Your task to perform on an android device: install app "Roku - Official Remote Control" Image 0: 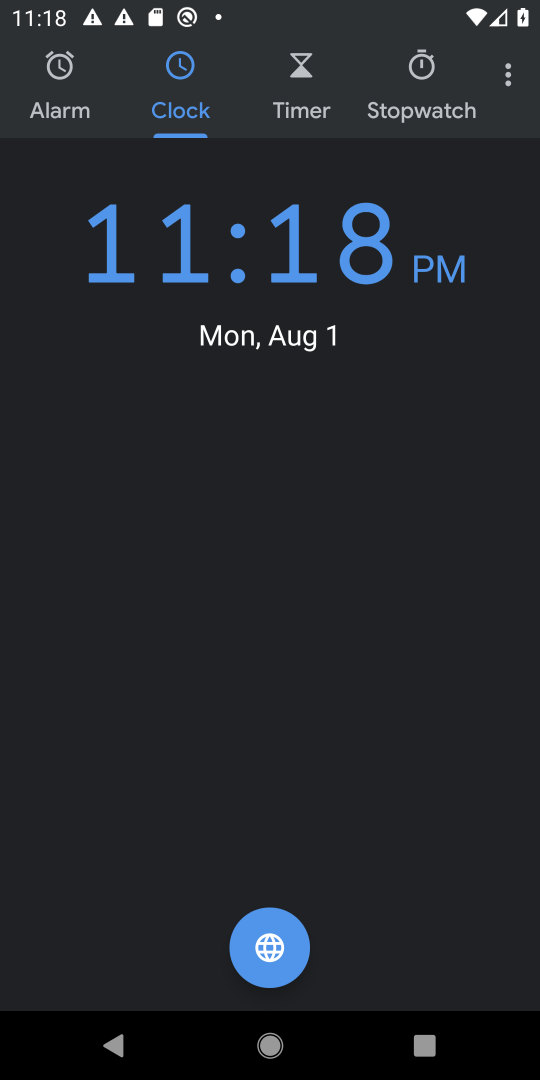
Step 0: press home button
Your task to perform on an android device: install app "Roku - Official Remote Control" Image 1: 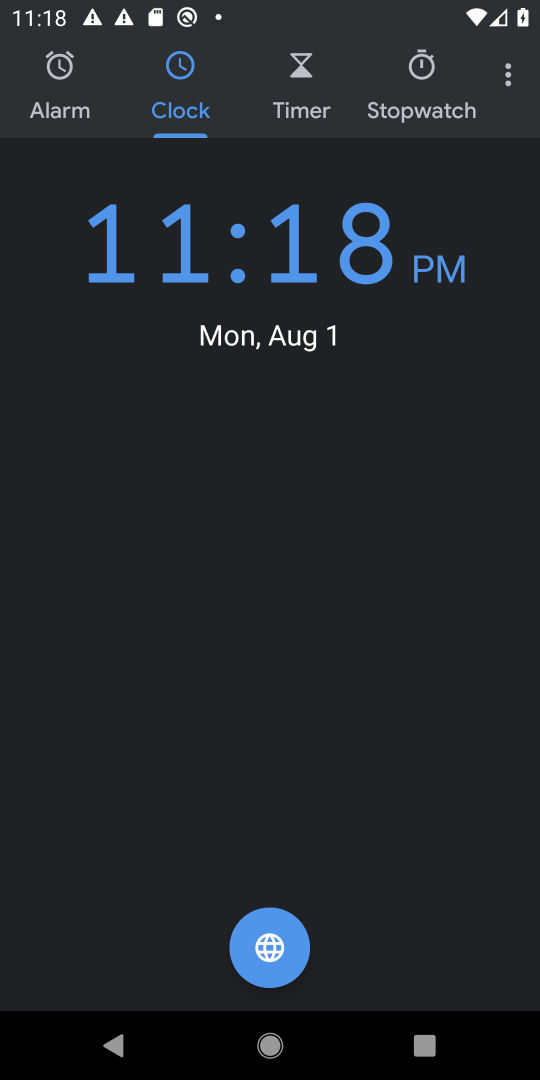
Step 1: drag from (315, 766) to (307, 89)
Your task to perform on an android device: install app "Roku - Official Remote Control" Image 2: 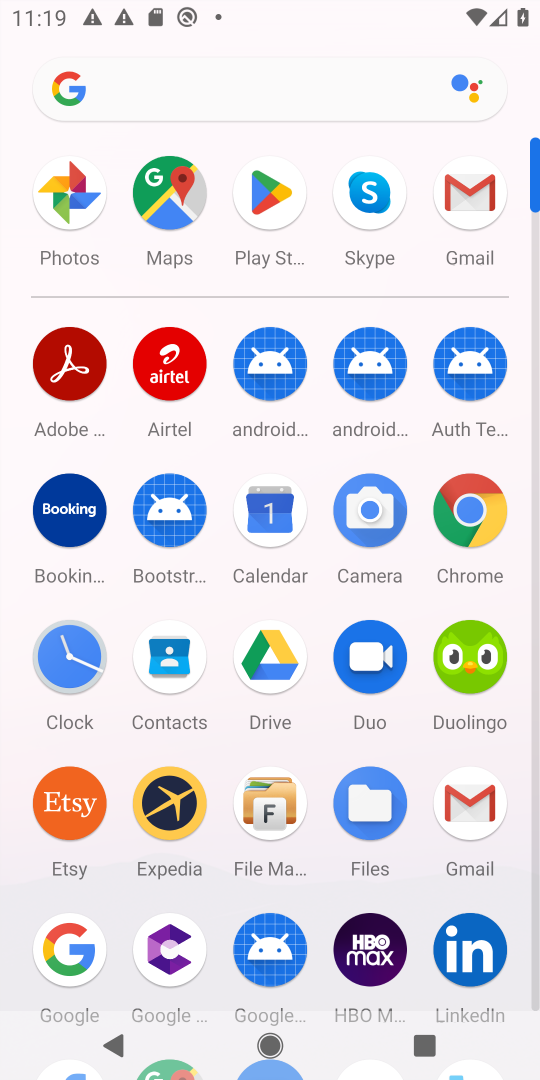
Step 2: click (288, 182)
Your task to perform on an android device: install app "Roku - Official Remote Control" Image 3: 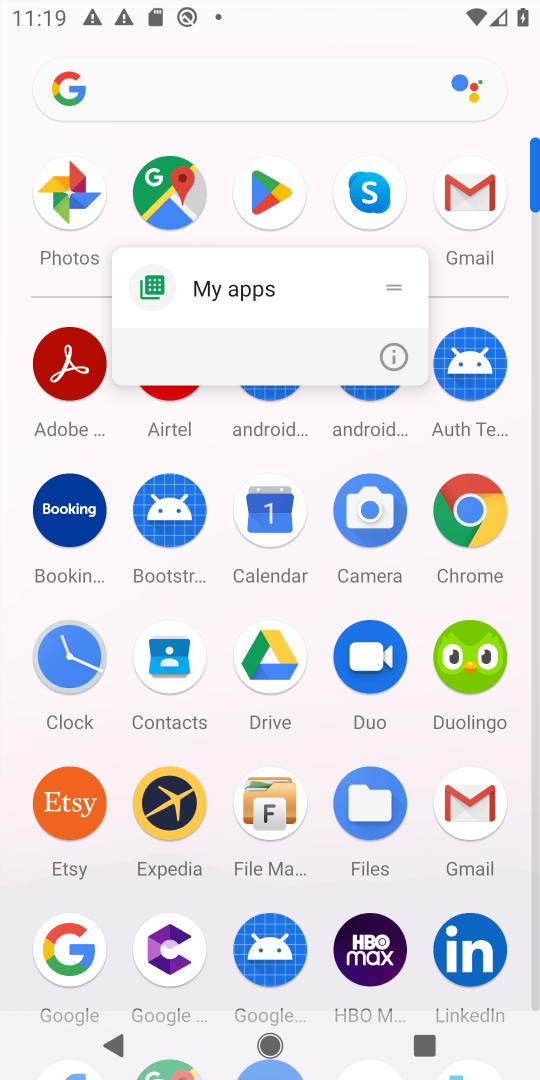
Step 3: click (401, 349)
Your task to perform on an android device: install app "Roku - Official Remote Control" Image 4: 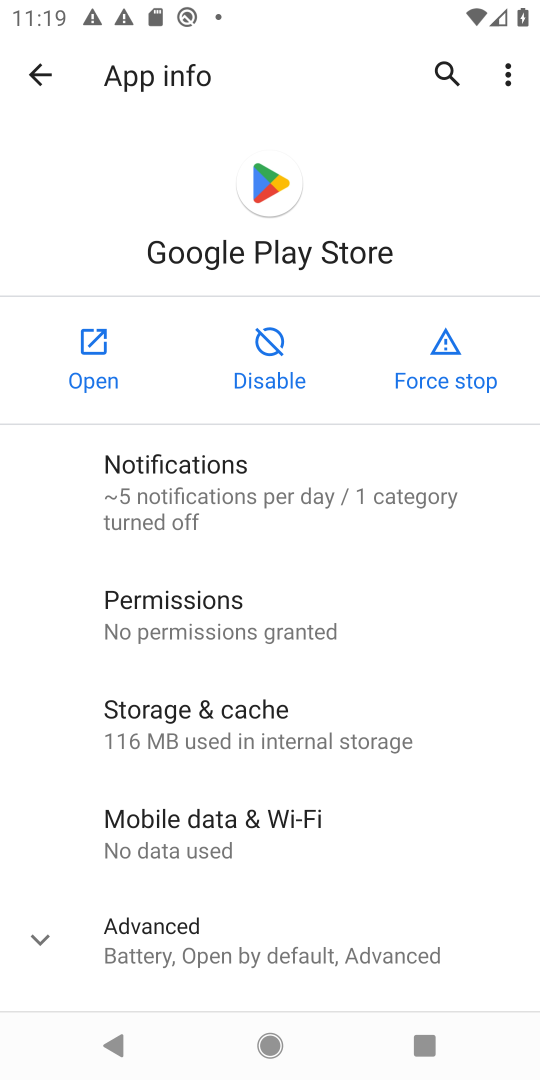
Step 4: click (75, 381)
Your task to perform on an android device: install app "Roku - Official Remote Control" Image 5: 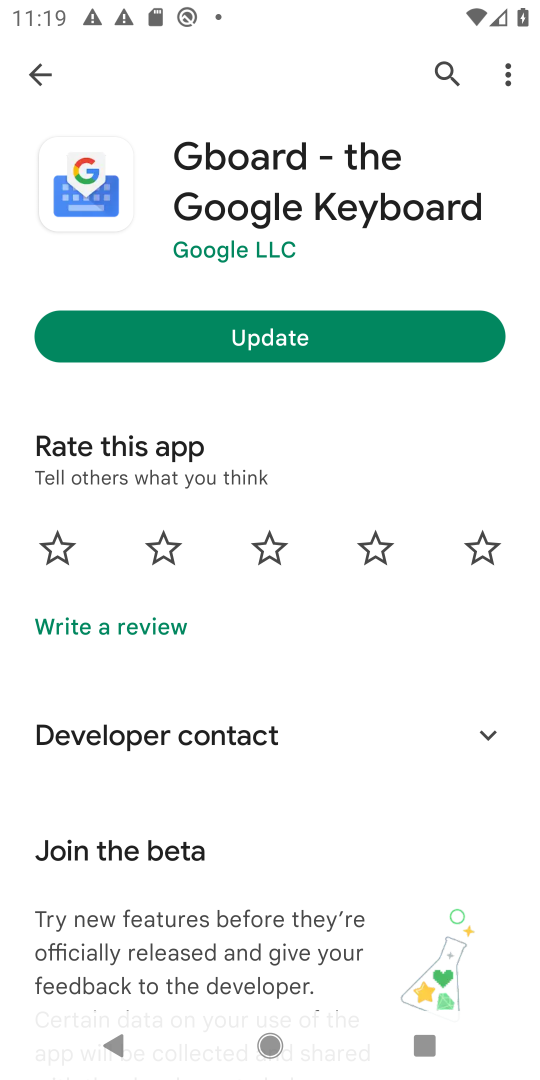
Step 5: drag from (309, 220) to (301, 979)
Your task to perform on an android device: install app "Roku - Official Remote Control" Image 6: 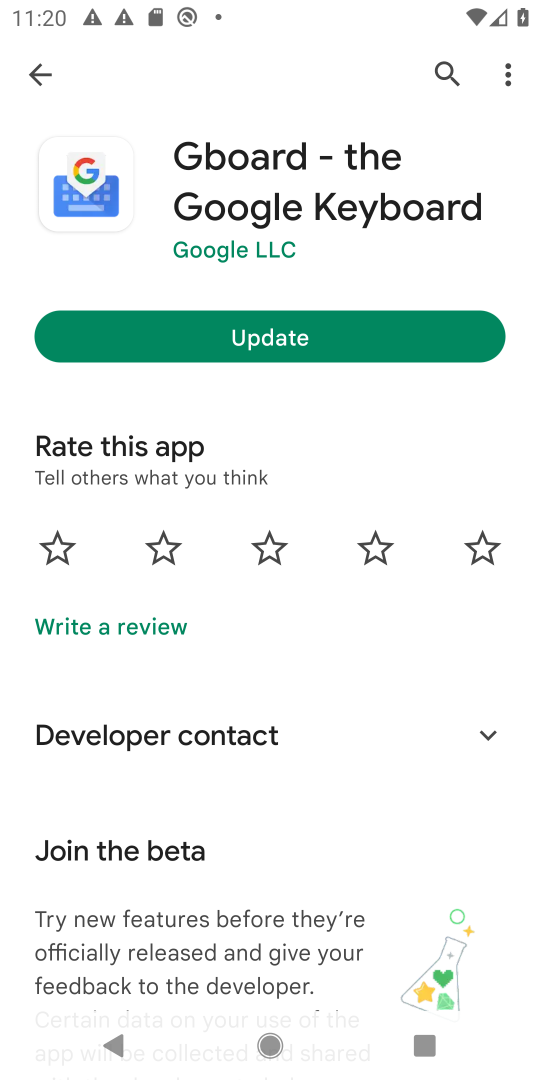
Step 6: click (438, 77)
Your task to perform on an android device: install app "Roku - Official Remote Control" Image 7: 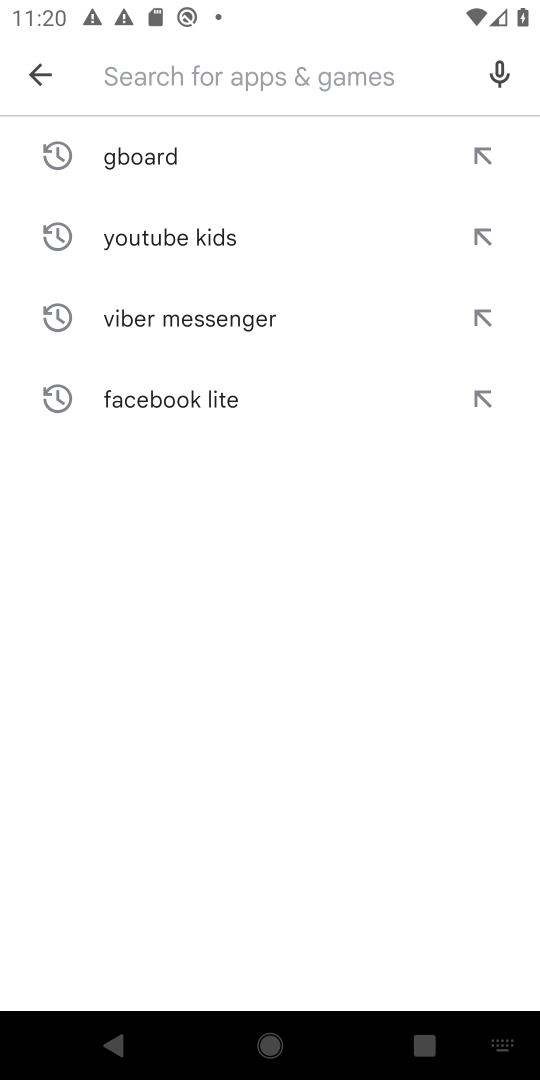
Step 7: type "Official Remote Control"
Your task to perform on an android device: install app "Roku - Official Remote Control" Image 8: 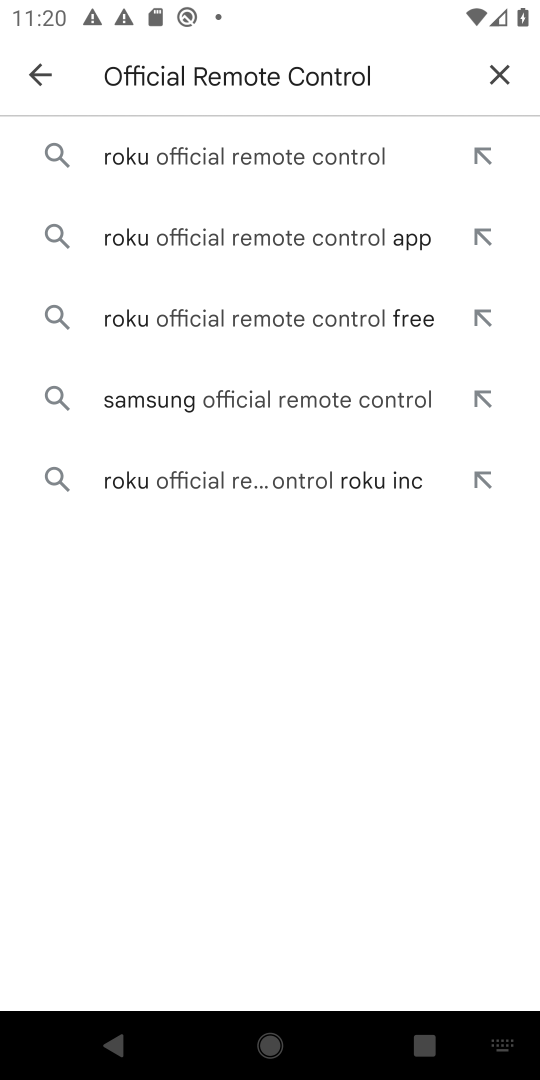
Step 8: click (287, 150)
Your task to perform on an android device: install app "Roku - Official Remote Control" Image 9: 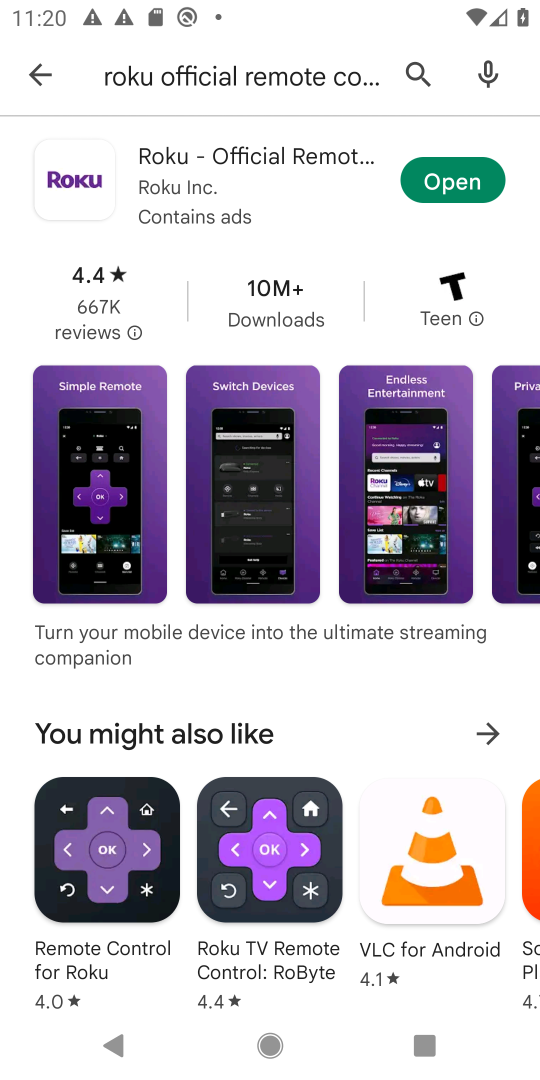
Step 9: drag from (347, 771) to (365, 1077)
Your task to perform on an android device: install app "Roku - Official Remote Control" Image 10: 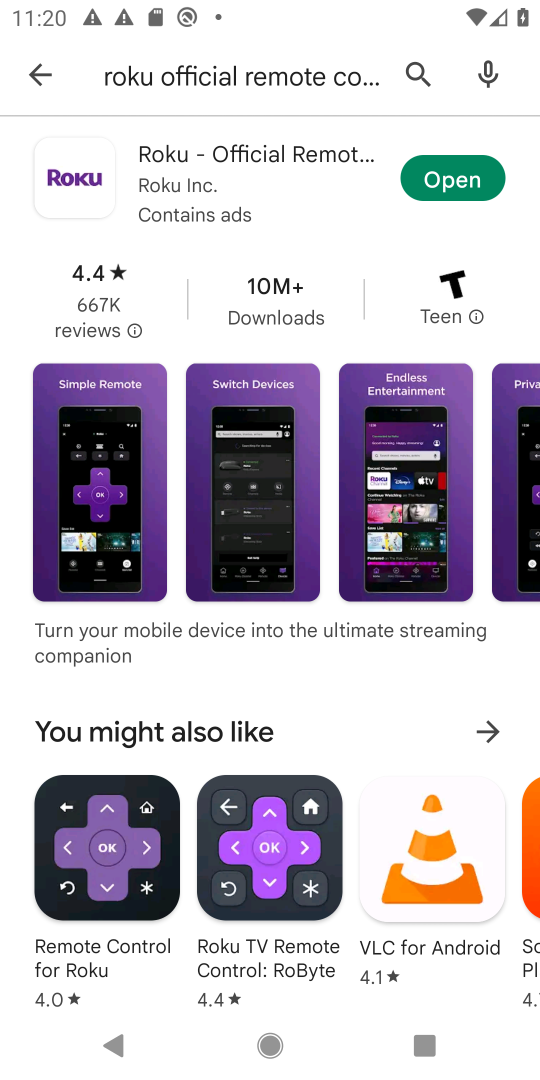
Step 10: drag from (230, 281) to (372, 881)
Your task to perform on an android device: install app "Roku - Official Remote Control" Image 11: 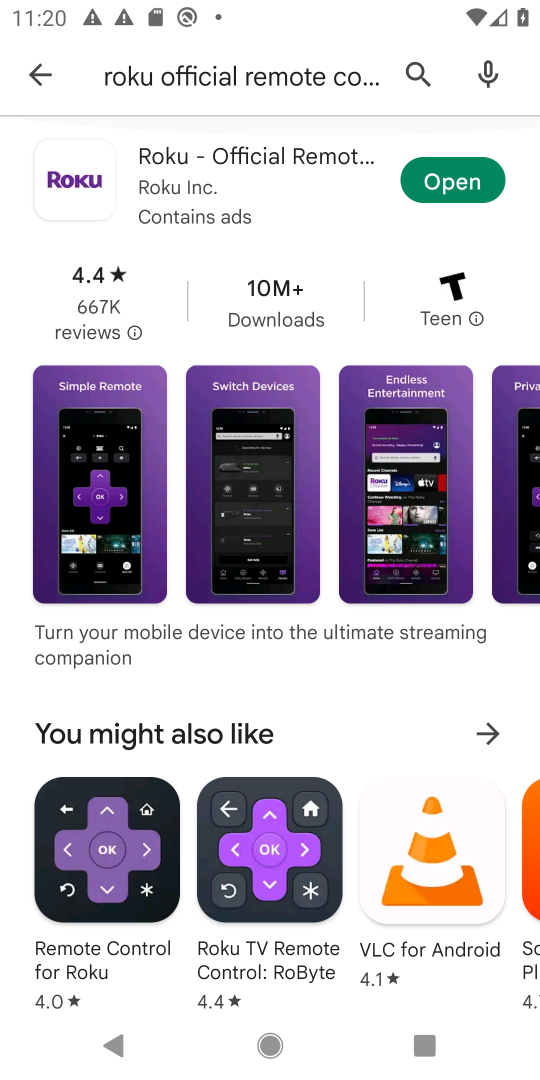
Step 11: click (213, 171)
Your task to perform on an android device: install app "Roku - Official Remote Control" Image 12: 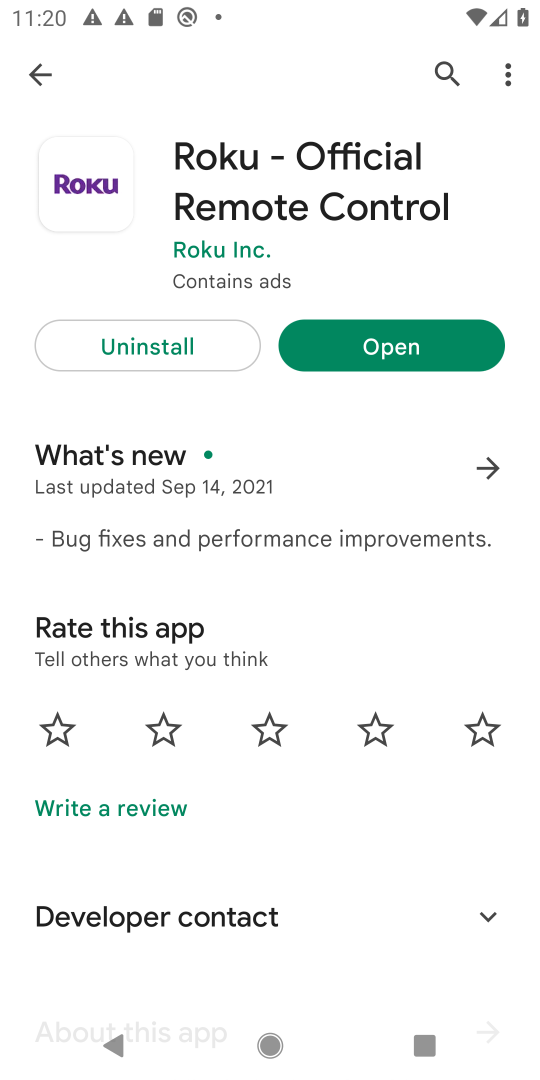
Step 12: task complete